Your task to perform on an android device: turn off improve location accuracy Image 0: 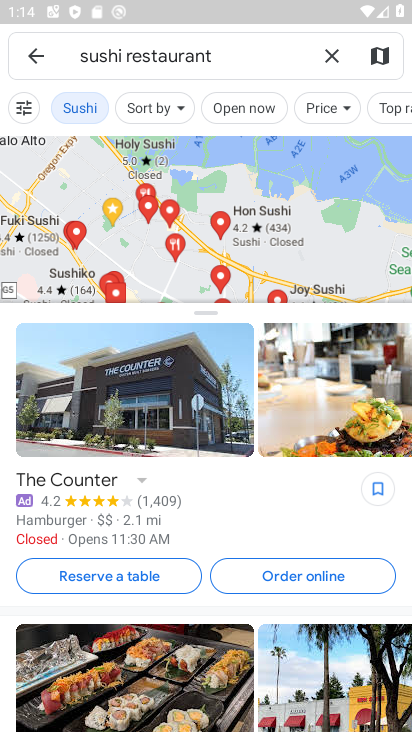
Step 0: press back button
Your task to perform on an android device: turn off improve location accuracy Image 1: 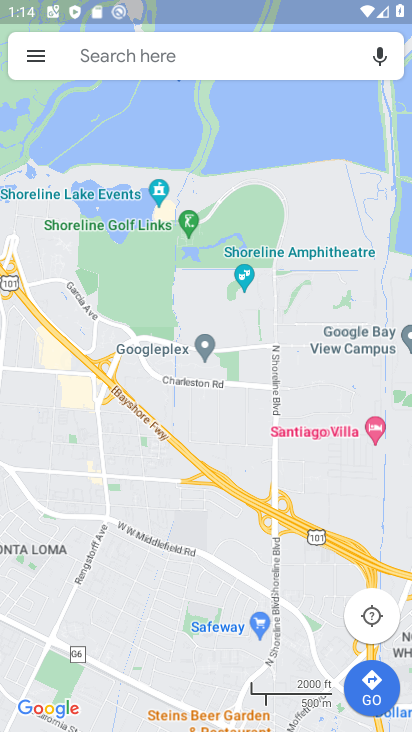
Step 1: press back button
Your task to perform on an android device: turn off improve location accuracy Image 2: 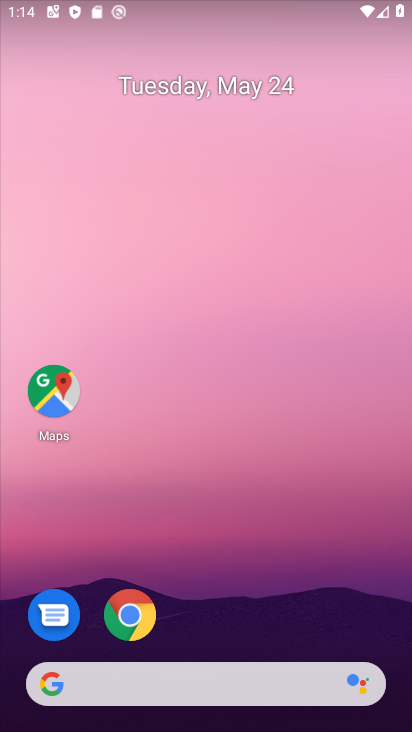
Step 2: drag from (212, 536) to (240, 184)
Your task to perform on an android device: turn off improve location accuracy Image 3: 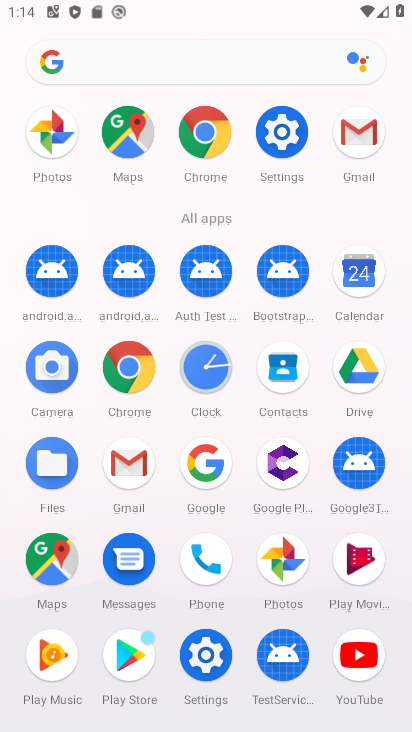
Step 3: click (284, 124)
Your task to perform on an android device: turn off improve location accuracy Image 4: 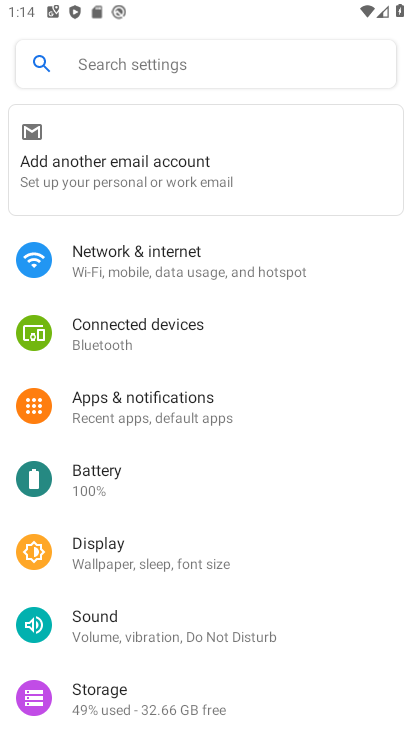
Step 4: drag from (165, 654) to (210, 304)
Your task to perform on an android device: turn off improve location accuracy Image 5: 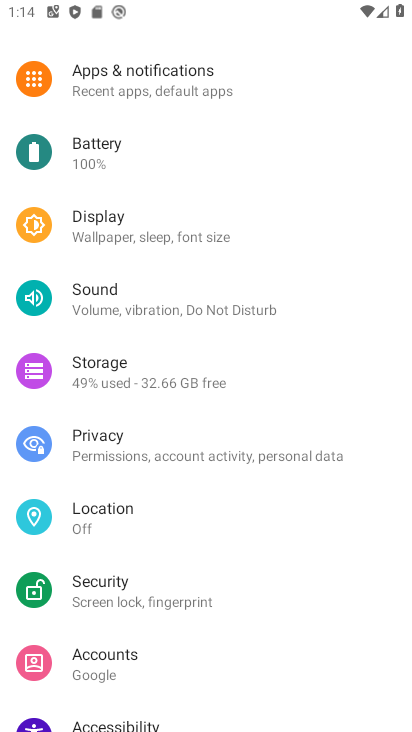
Step 5: click (92, 524)
Your task to perform on an android device: turn off improve location accuracy Image 6: 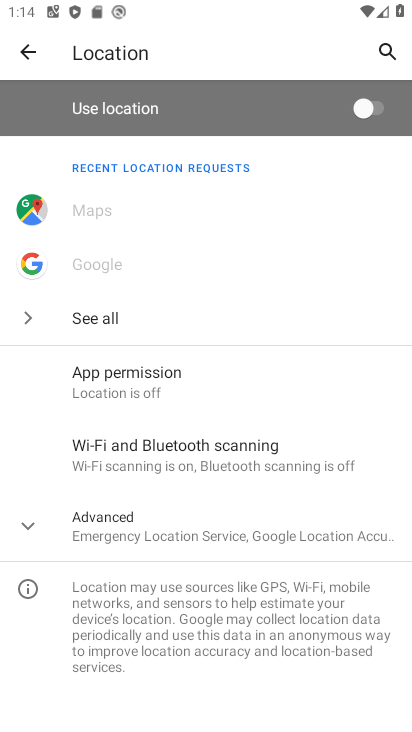
Step 6: click (134, 514)
Your task to perform on an android device: turn off improve location accuracy Image 7: 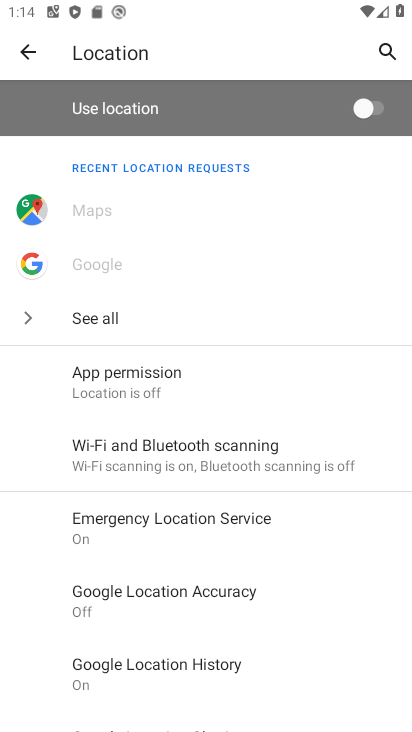
Step 7: click (162, 605)
Your task to perform on an android device: turn off improve location accuracy Image 8: 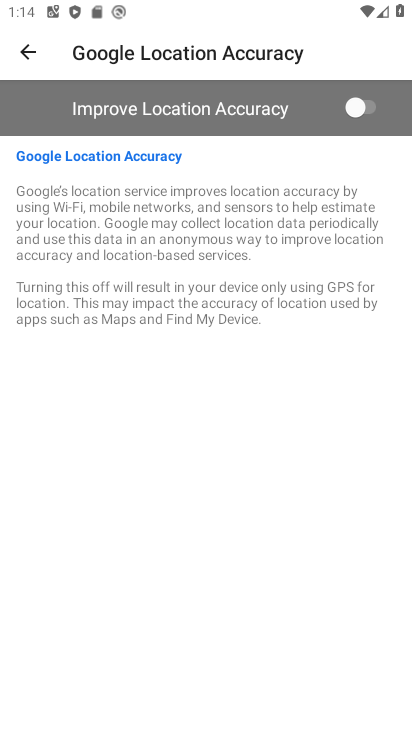
Step 8: task complete